Your task to perform on an android device: show emergency info Image 0: 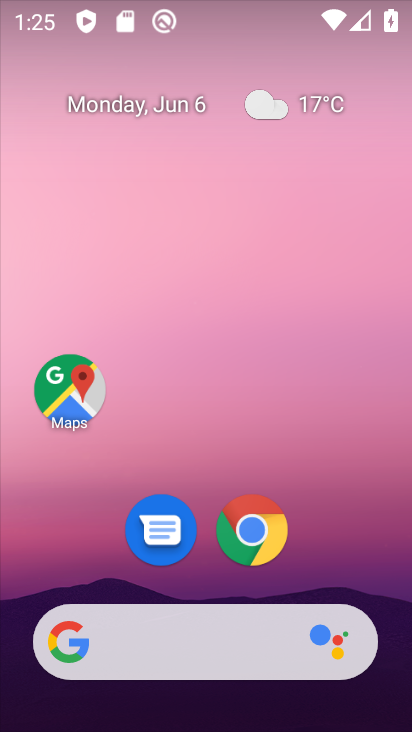
Step 0: drag from (373, 565) to (281, 156)
Your task to perform on an android device: show emergency info Image 1: 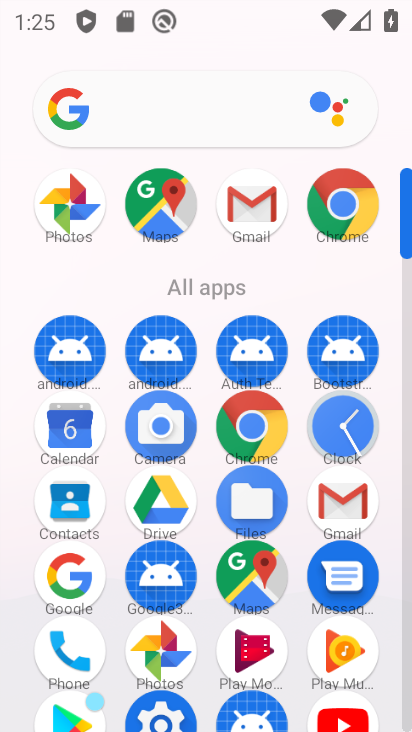
Step 1: click (404, 703)
Your task to perform on an android device: show emergency info Image 2: 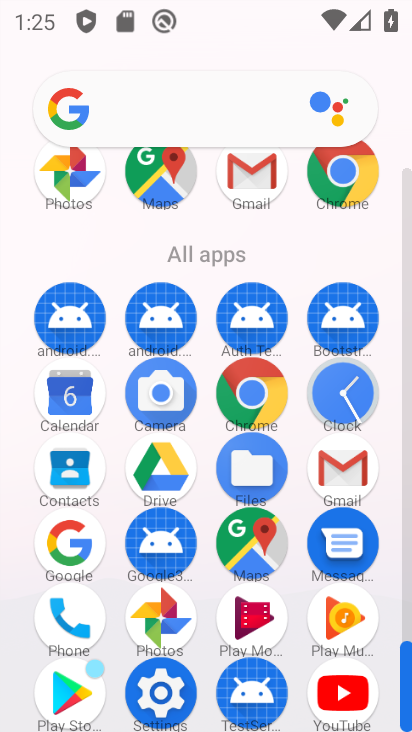
Step 2: click (160, 687)
Your task to perform on an android device: show emergency info Image 3: 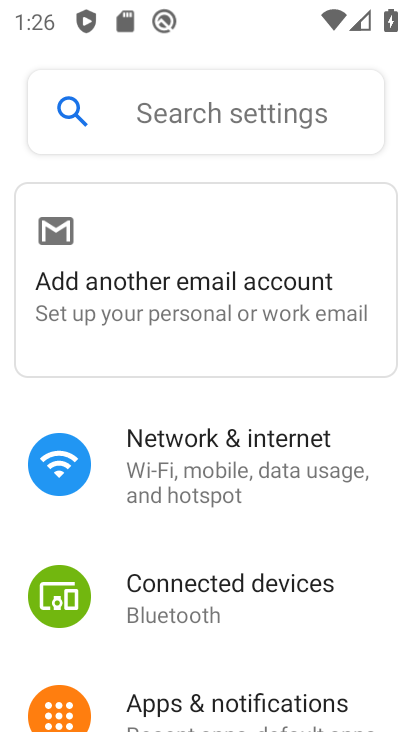
Step 3: drag from (260, 666) to (211, 283)
Your task to perform on an android device: show emergency info Image 4: 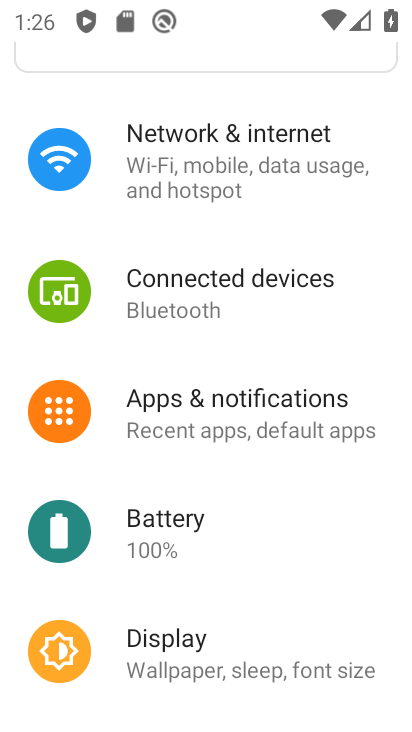
Step 4: drag from (266, 660) to (277, 254)
Your task to perform on an android device: show emergency info Image 5: 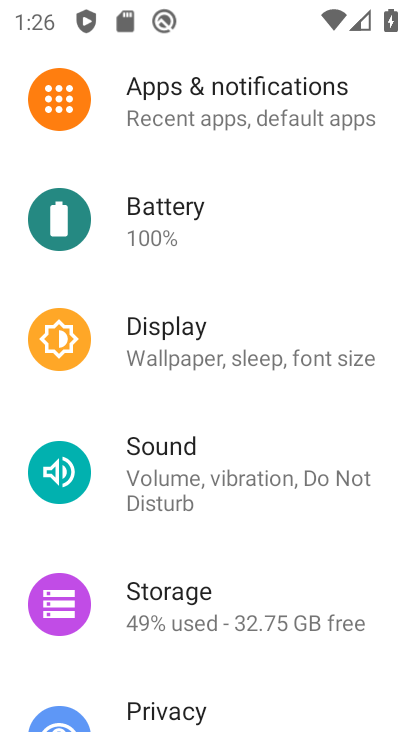
Step 5: drag from (311, 604) to (295, 172)
Your task to perform on an android device: show emergency info Image 6: 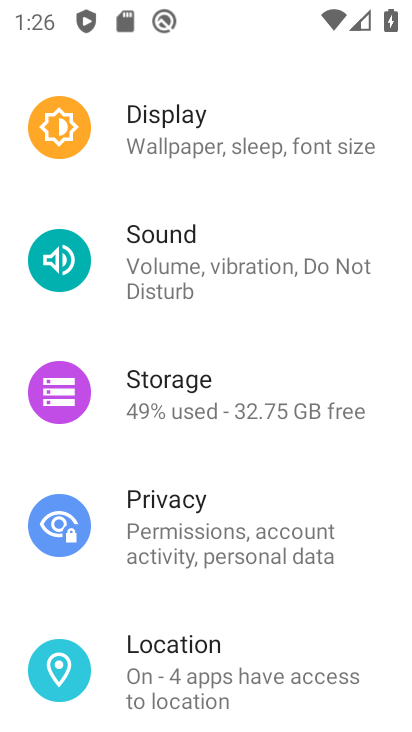
Step 6: drag from (248, 632) to (222, 290)
Your task to perform on an android device: show emergency info Image 7: 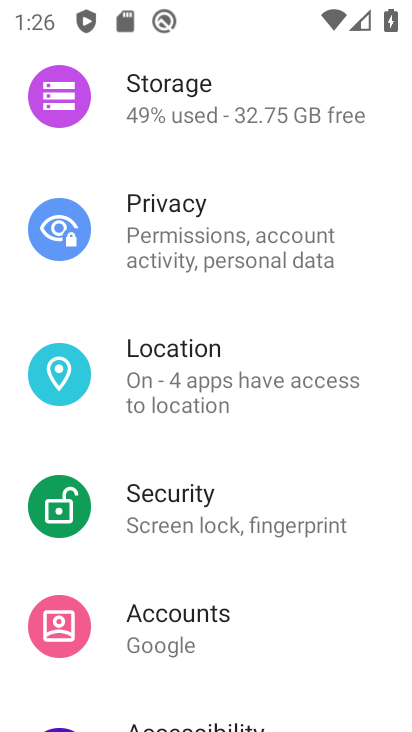
Step 7: drag from (222, 290) to (224, 47)
Your task to perform on an android device: show emergency info Image 8: 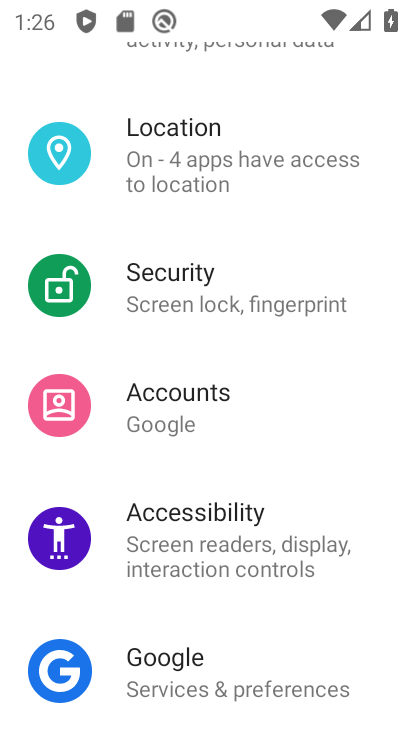
Step 8: drag from (212, 576) to (197, 37)
Your task to perform on an android device: show emergency info Image 9: 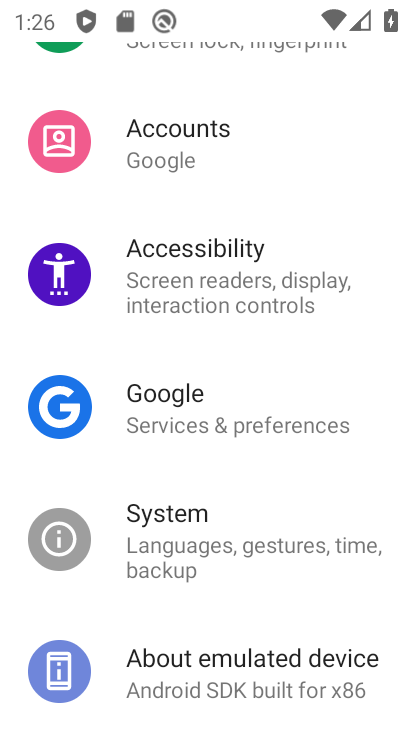
Step 9: click (196, 668)
Your task to perform on an android device: show emergency info Image 10: 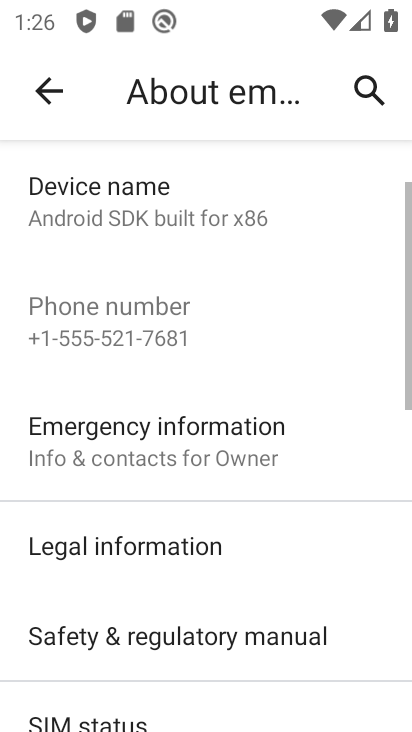
Step 10: click (232, 470)
Your task to perform on an android device: show emergency info Image 11: 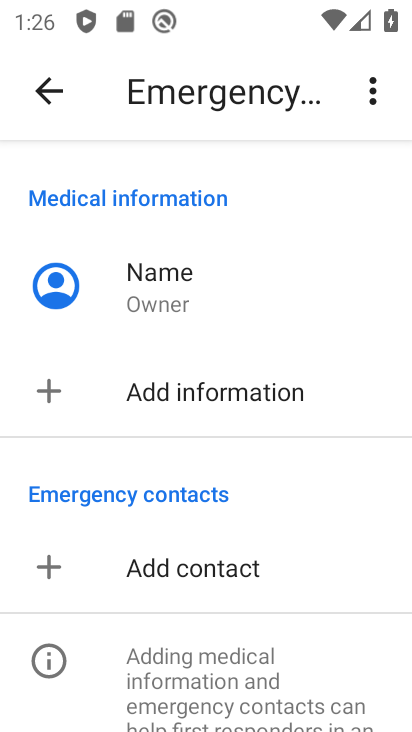
Step 11: task complete